Your task to perform on an android device: Do I have any events tomorrow? Image 0: 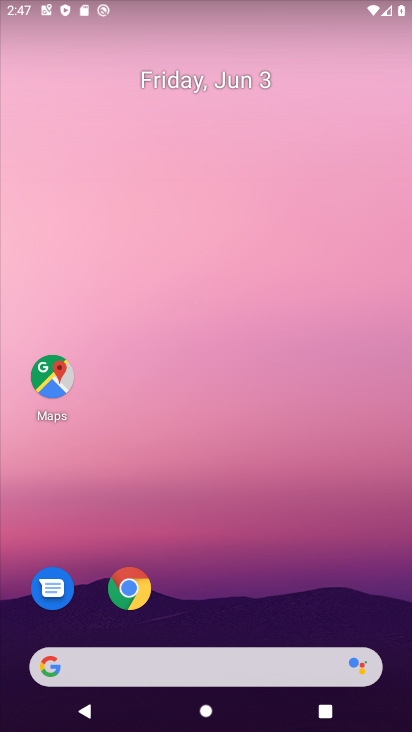
Step 0: drag from (225, 587) to (237, 142)
Your task to perform on an android device: Do I have any events tomorrow? Image 1: 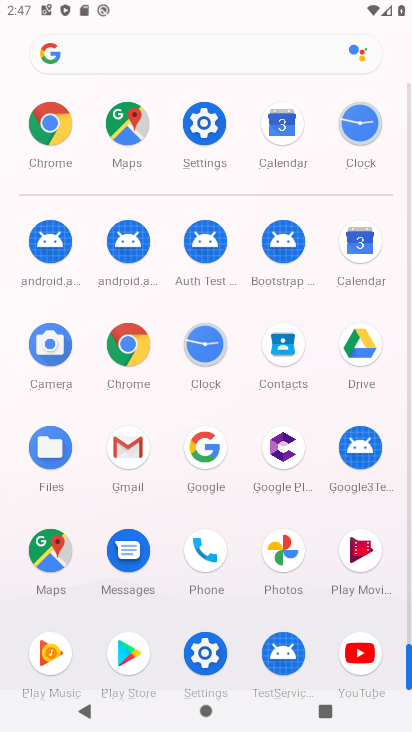
Step 1: click (361, 255)
Your task to perform on an android device: Do I have any events tomorrow? Image 2: 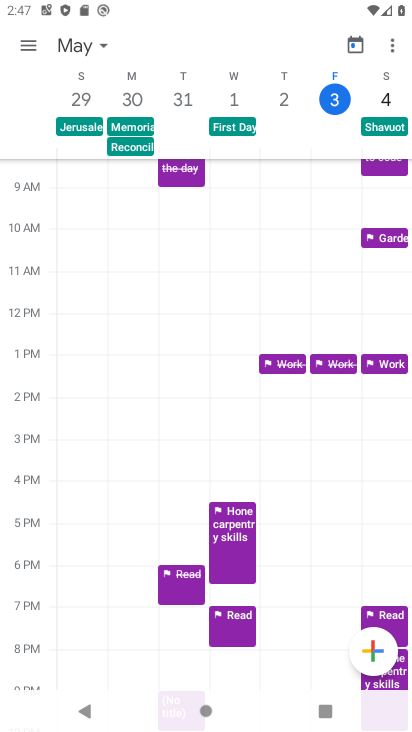
Step 2: click (381, 103)
Your task to perform on an android device: Do I have any events tomorrow? Image 3: 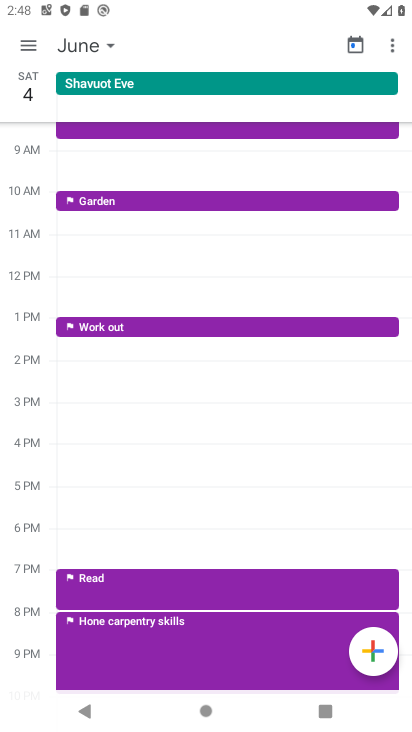
Step 3: task complete